Your task to perform on an android device: Do I have any events tomorrow? Image 0: 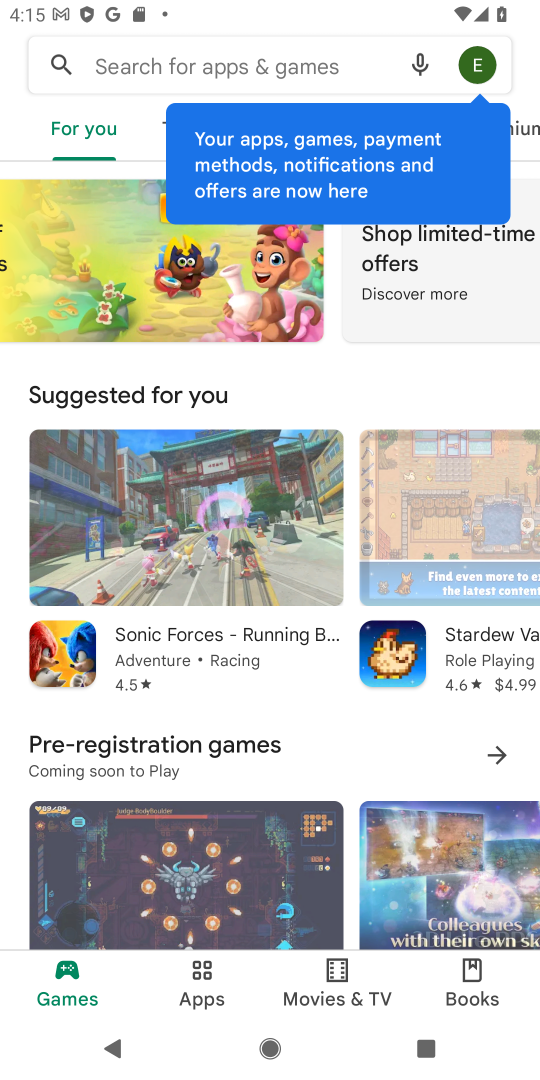
Step 0: press home button
Your task to perform on an android device: Do I have any events tomorrow? Image 1: 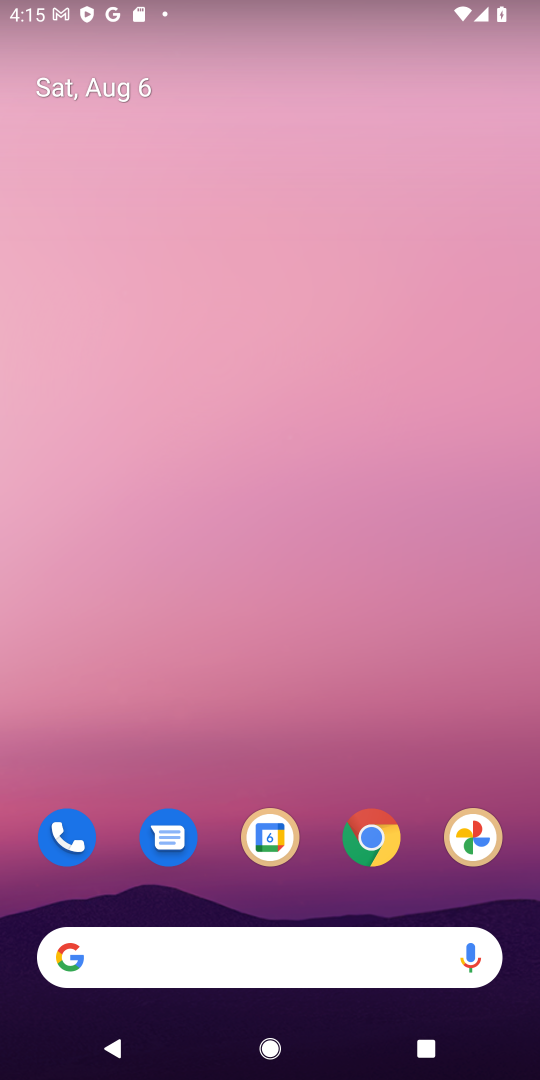
Step 1: drag from (416, 887) to (386, 155)
Your task to perform on an android device: Do I have any events tomorrow? Image 2: 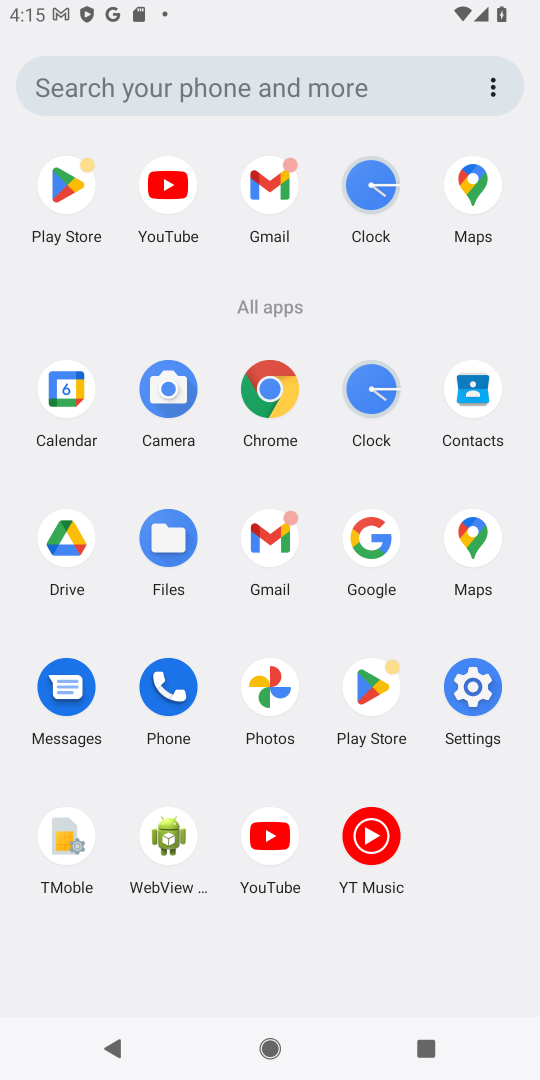
Step 2: click (65, 391)
Your task to perform on an android device: Do I have any events tomorrow? Image 3: 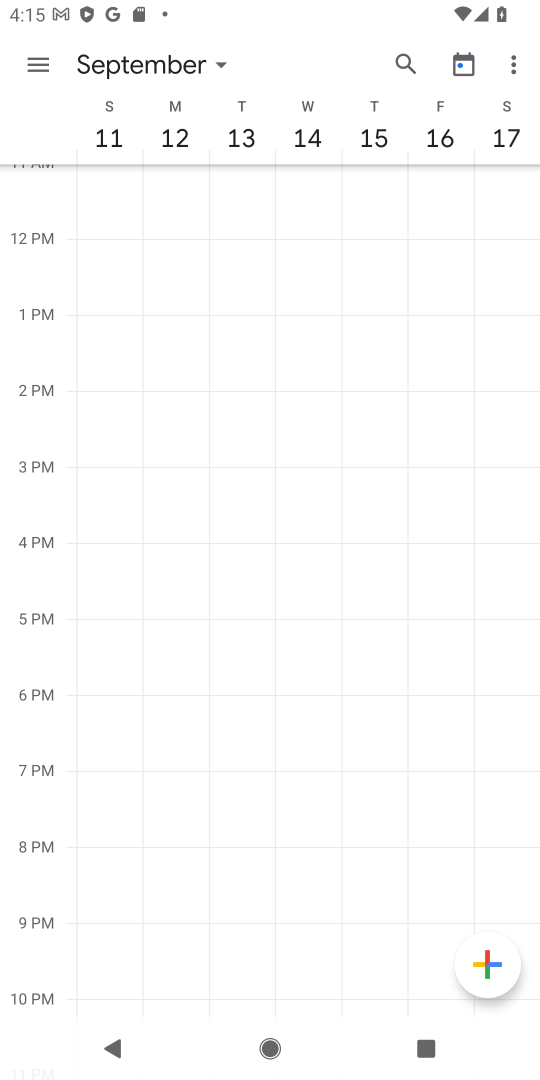
Step 3: click (27, 65)
Your task to perform on an android device: Do I have any events tomorrow? Image 4: 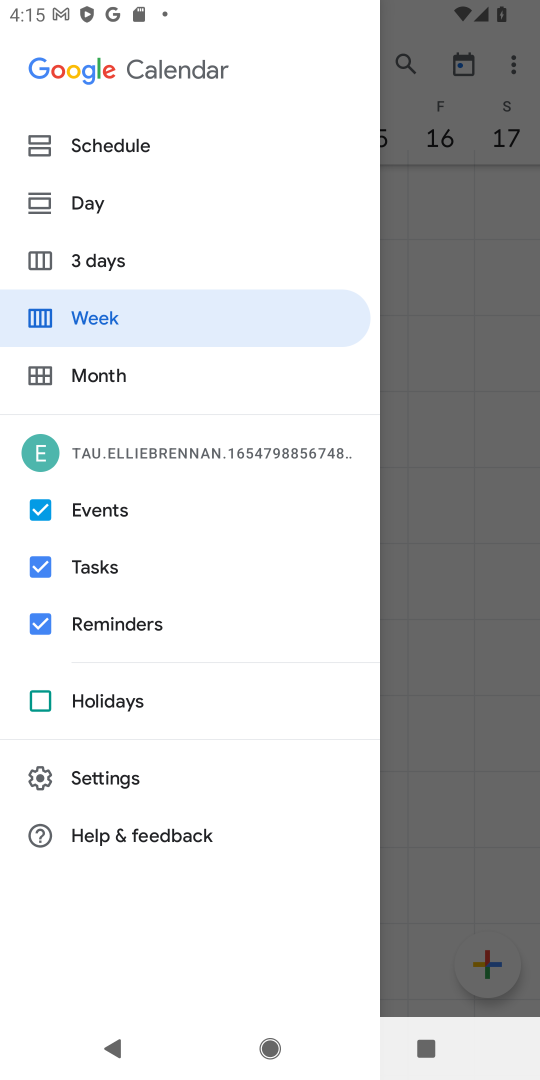
Step 4: click (93, 206)
Your task to perform on an android device: Do I have any events tomorrow? Image 5: 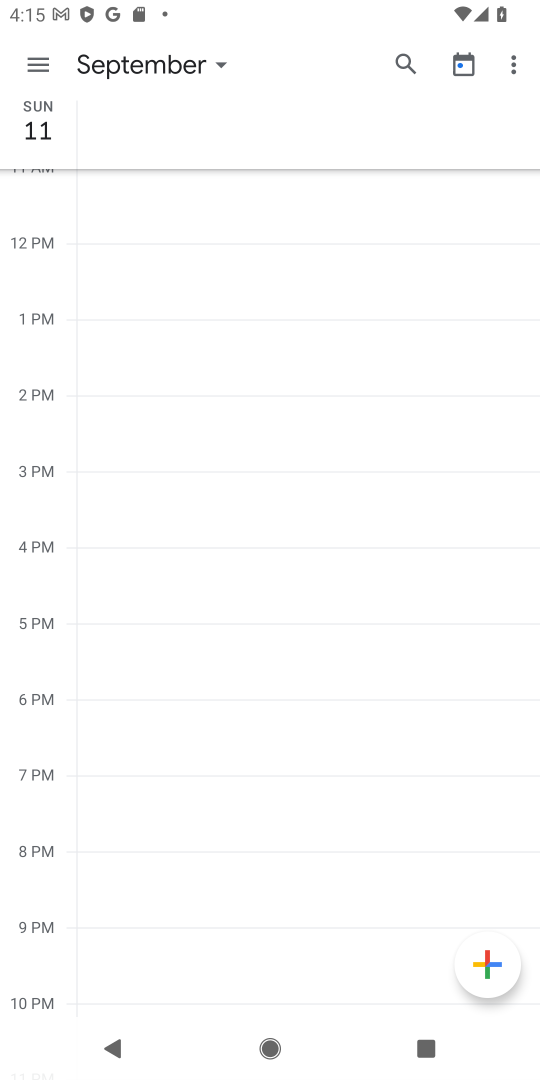
Step 5: click (209, 69)
Your task to perform on an android device: Do I have any events tomorrow? Image 6: 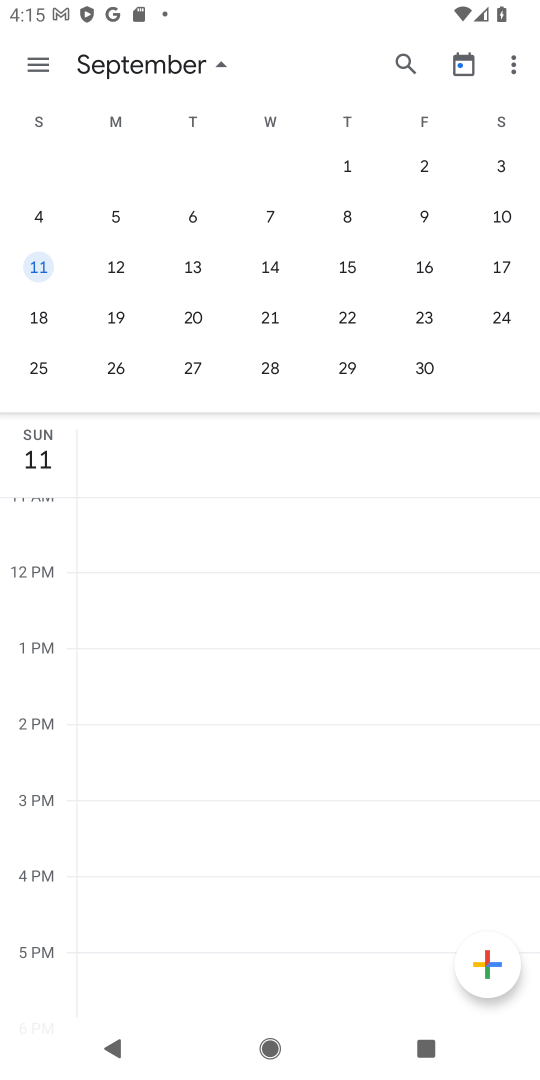
Step 6: drag from (32, 307) to (386, 309)
Your task to perform on an android device: Do I have any events tomorrow? Image 7: 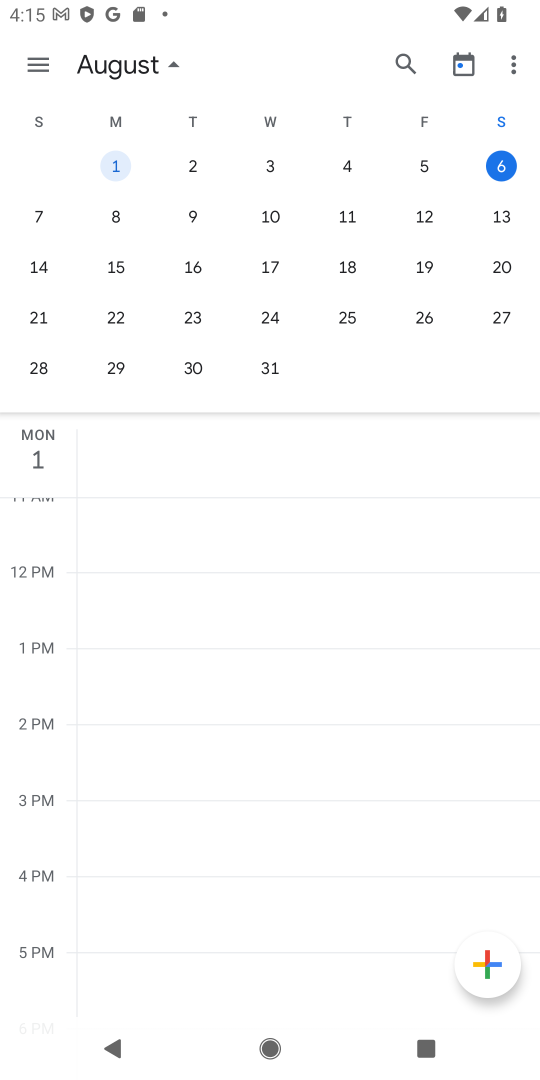
Step 7: click (38, 210)
Your task to perform on an android device: Do I have any events tomorrow? Image 8: 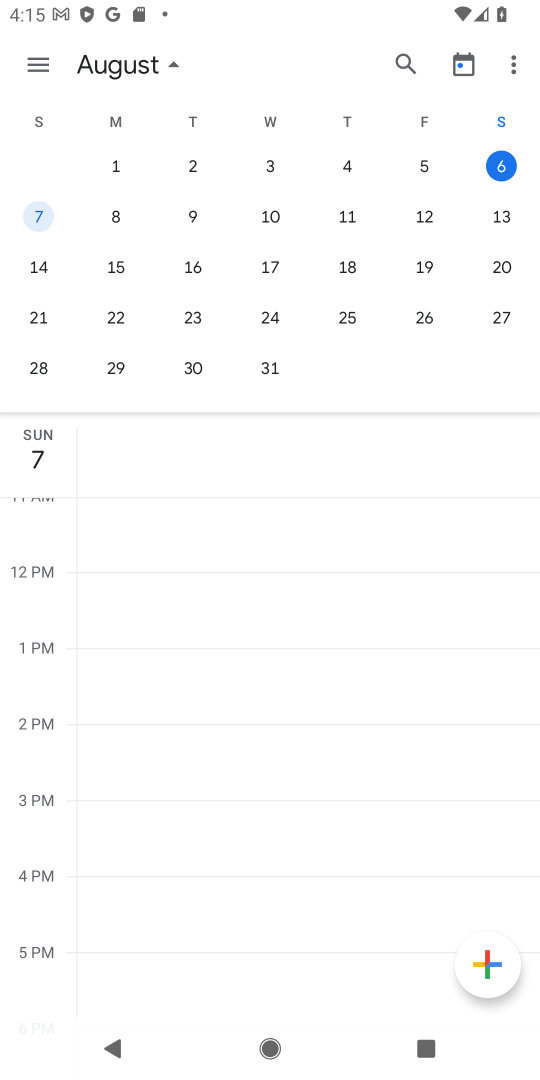
Step 8: task complete